Your task to perform on an android device: delete location history Image 0: 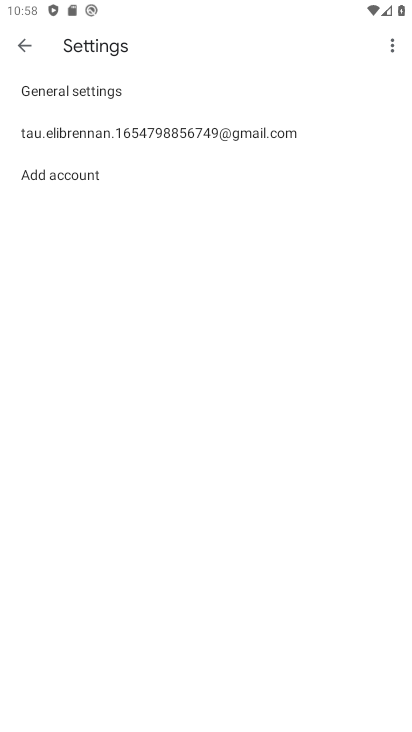
Step 0: press home button
Your task to perform on an android device: delete location history Image 1: 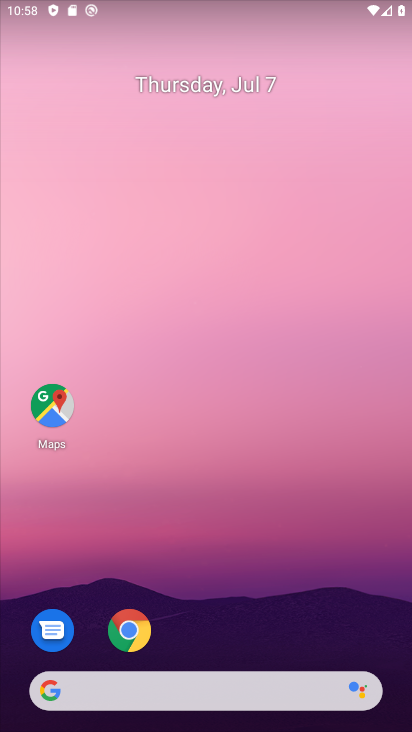
Step 1: click (50, 406)
Your task to perform on an android device: delete location history Image 2: 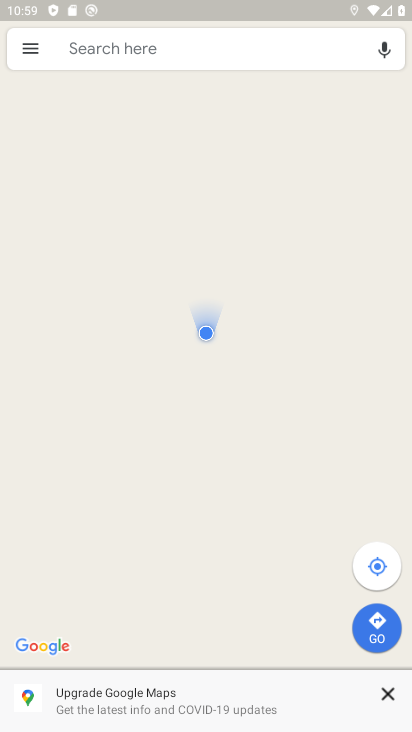
Step 2: click (30, 48)
Your task to perform on an android device: delete location history Image 3: 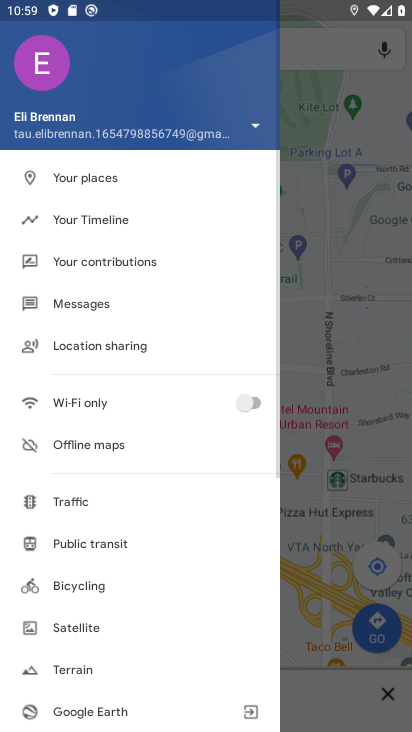
Step 3: drag from (169, 646) to (192, 223)
Your task to perform on an android device: delete location history Image 4: 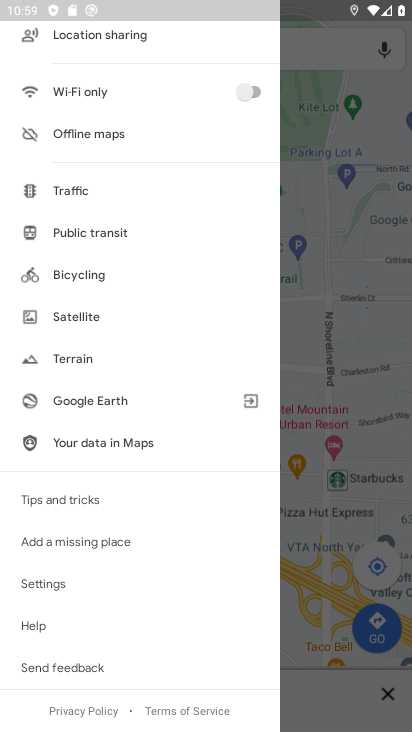
Step 4: click (56, 584)
Your task to perform on an android device: delete location history Image 5: 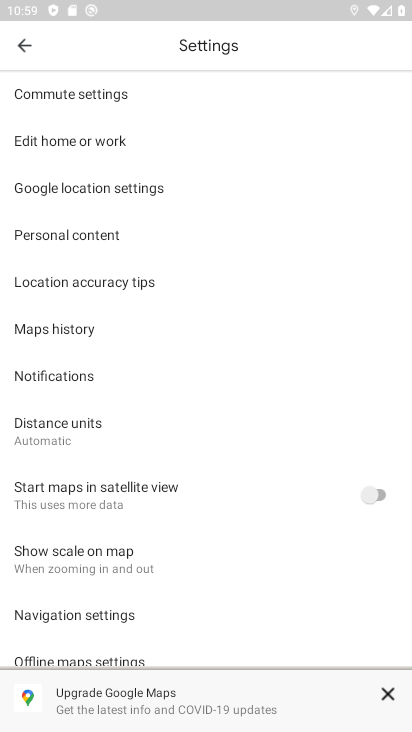
Step 5: click (59, 246)
Your task to perform on an android device: delete location history Image 6: 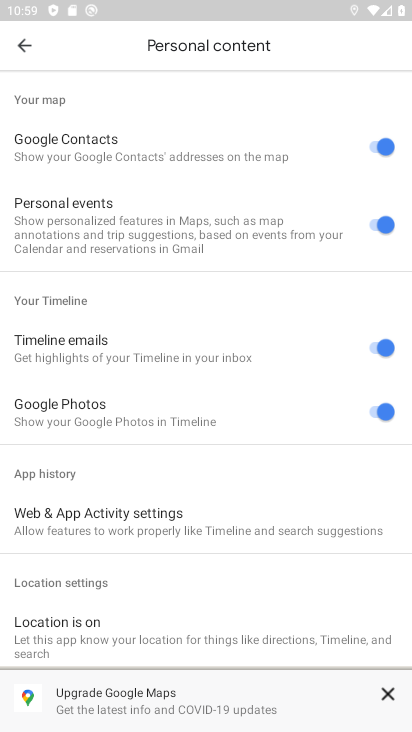
Step 6: drag from (256, 612) to (223, 211)
Your task to perform on an android device: delete location history Image 7: 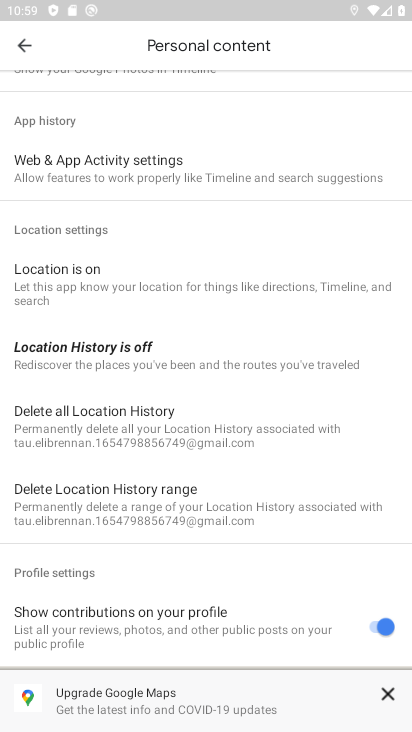
Step 7: click (91, 412)
Your task to perform on an android device: delete location history Image 8: 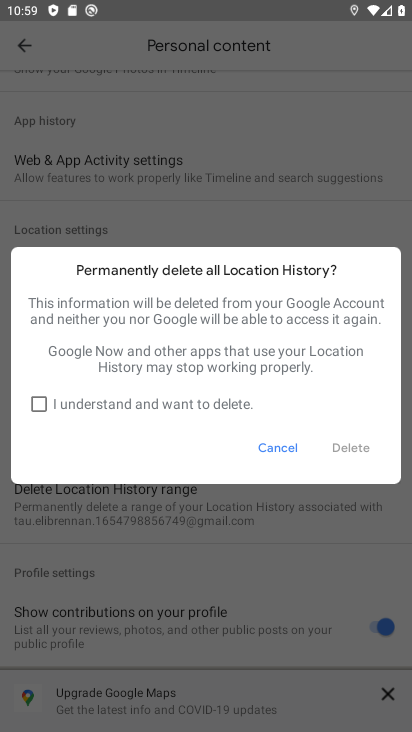
Step 8: click (38, 403)
Your task to perform on an android device: delete location history Image 9: 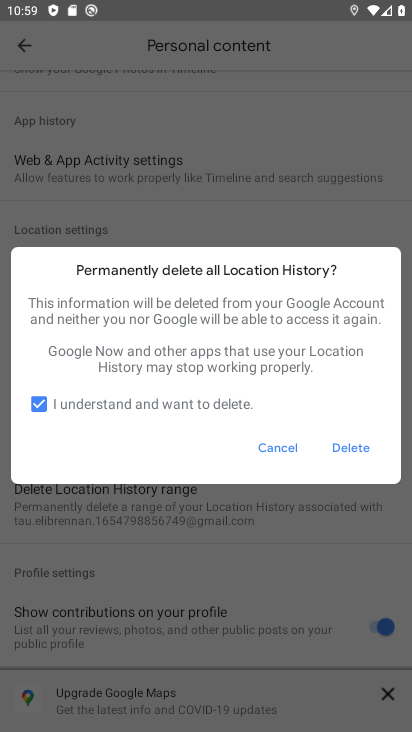
Step 9: click (358, 449)
Your task to perform on an android device: delete location history Image 10: 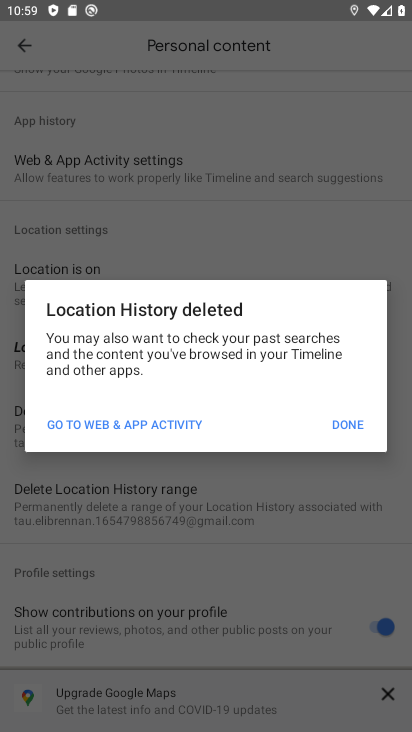
Step 10: click (347, 418)
Your task to perform on an android device: delete location history Image 11: 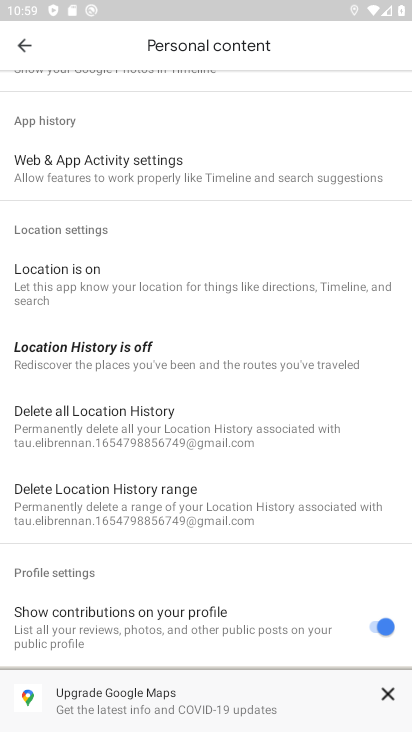
Step 11: task complete